Your task to perform on an android device: Open Reddit.com Image 0: 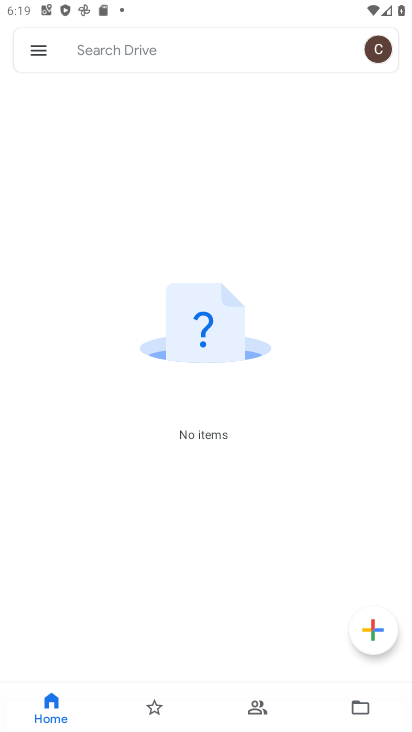
Step 0: press home button
Your task to perform on an android device: Open Reddit.com Image 1: 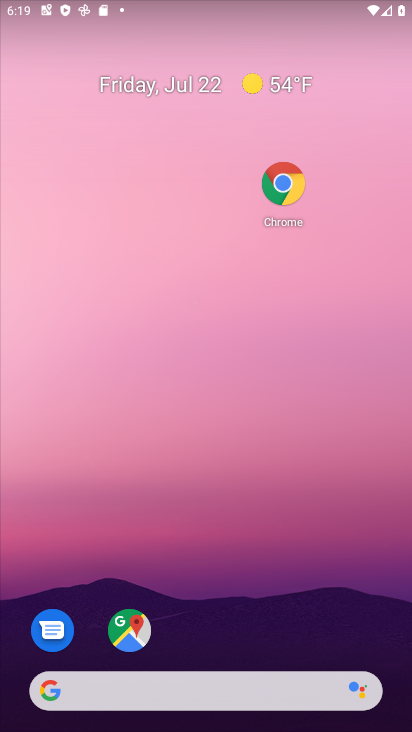
Step 1: click (282, 184)
Your task to perform on an android device: Open Reddit.com Image 2: 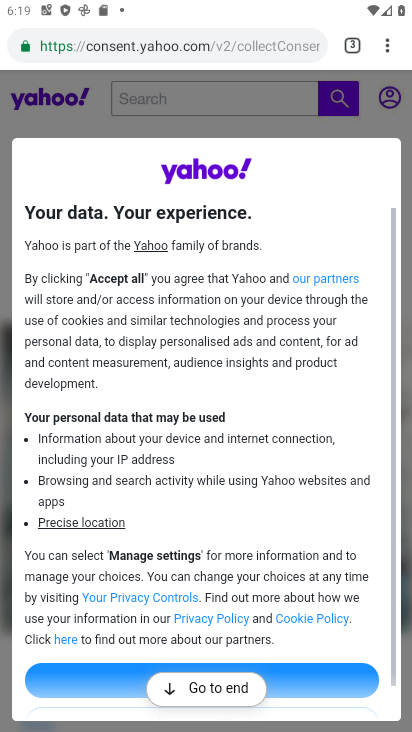
Step 2: click (213, 51)
Your task to perform on an android device: Open Reddit.com Image 3: 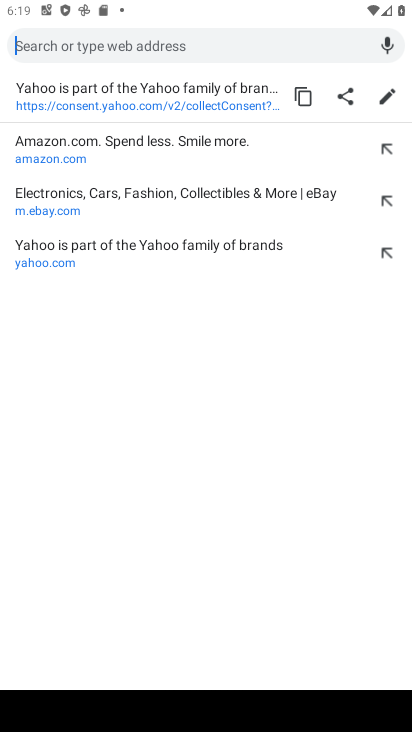
Step 3: type "www.reddit.com"
Your task to perform on an android device: Open Reddit.com Image 4: 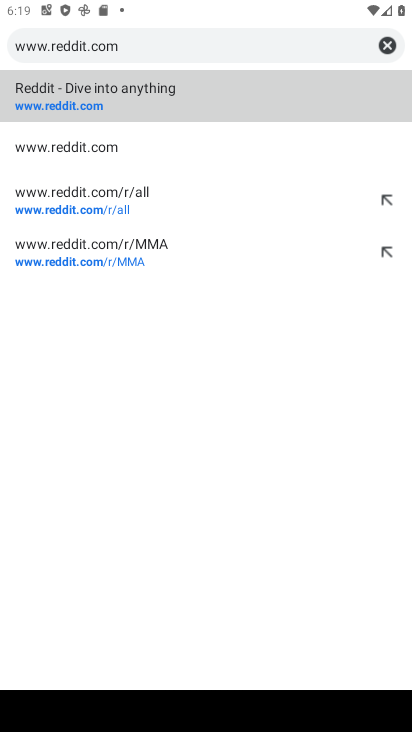
Step 4: click (91, 102)
Your task to perform on an android device: Open Reddit.com Image 5: 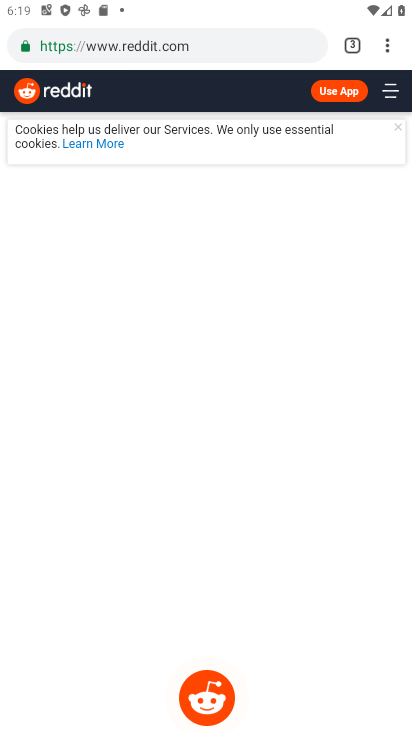
Step 5: task complete